Your task to perform on an android device: Check the weather Image 0: 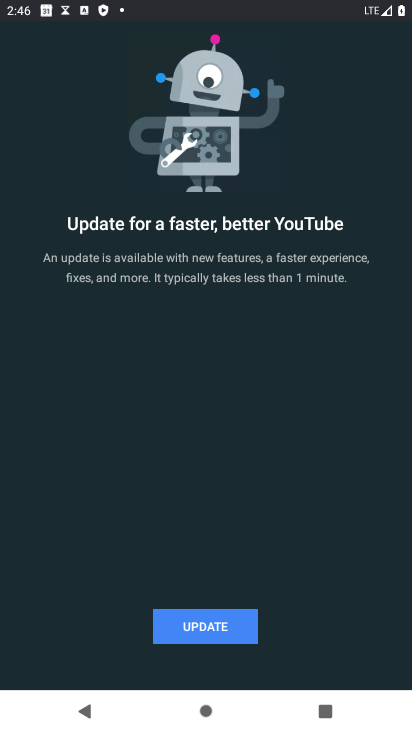
Step 0: press home button
Your task to perform on an android device: Check the weather Image 1: 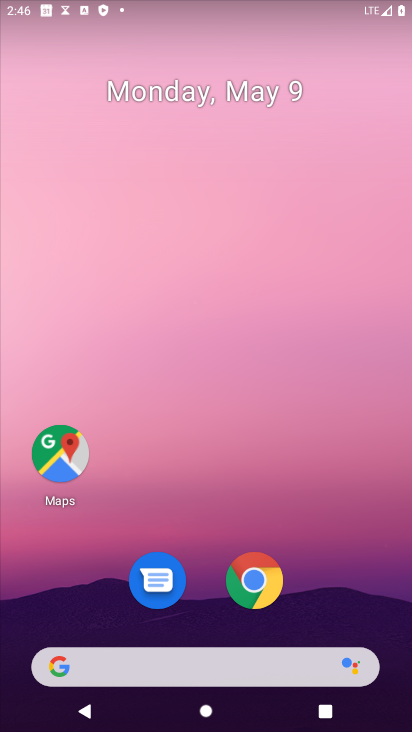
Step 1: drag from (336, 515) to (265, 89)
Your task to perform on an android device: Check the weather Image 2: 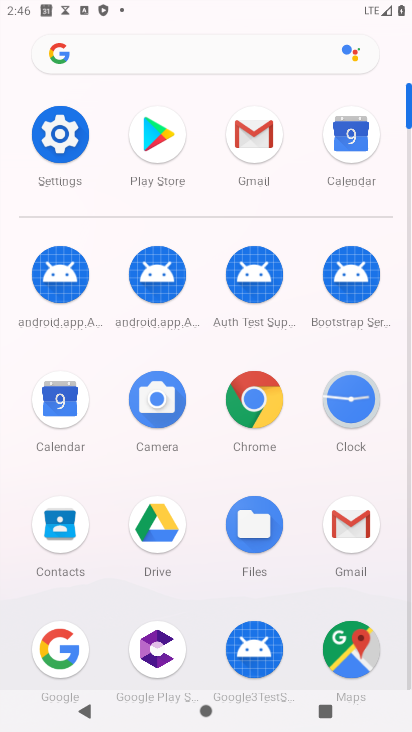
Step 2: click (62, 648)
Your task to perform on an android device: Check the weather Image 3: 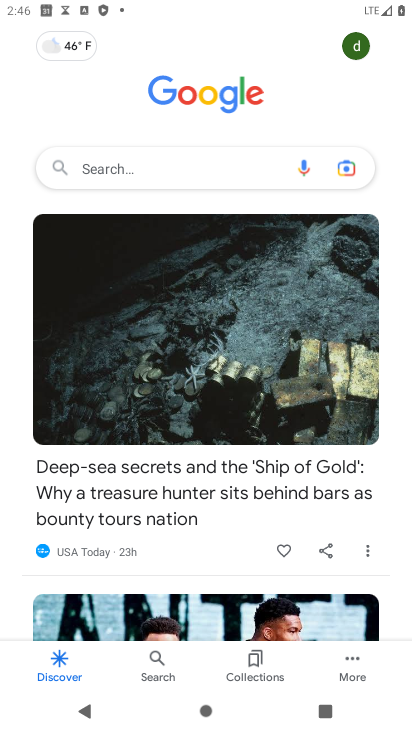
Step 3: click (67, 44)
Your task to perform on an android device: Check the weather Image 4: 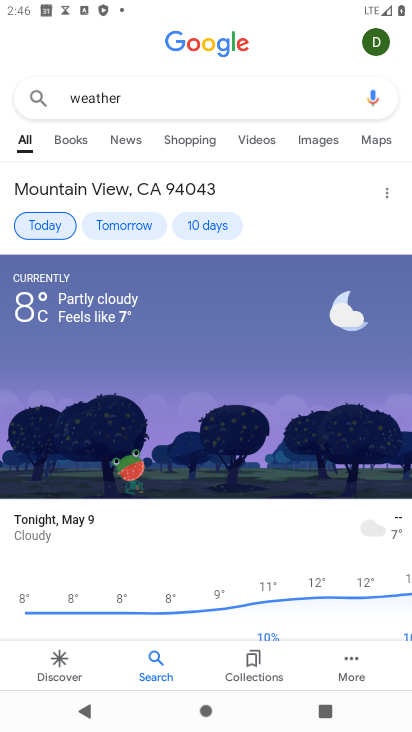
Step 4: task complete